Your task to perform on an android device: Search for usb-a on walmart, select the first entry, and add it to the cart. Image 0: 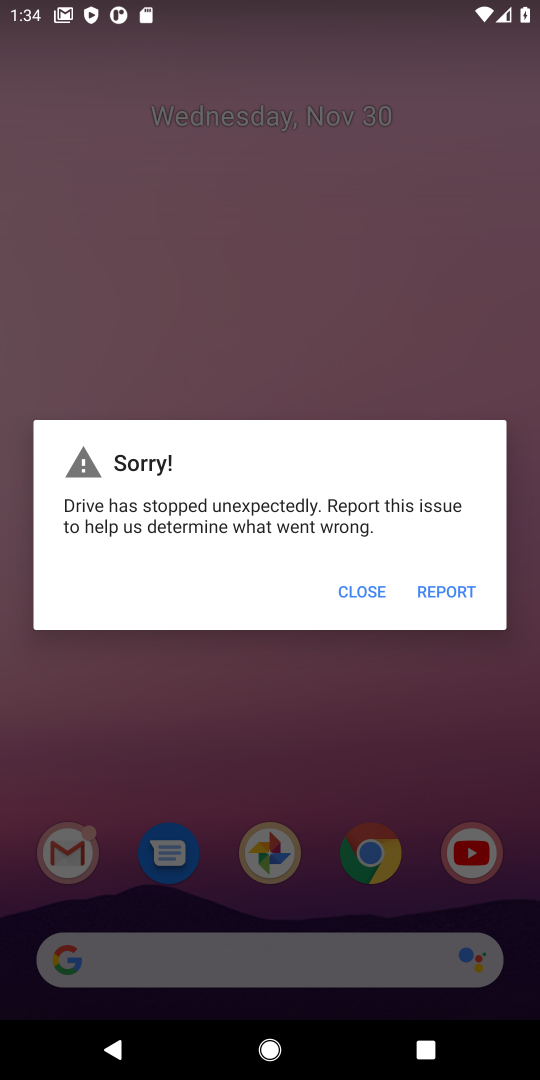
Step 0: press home button
Your task to perform on an android device: Search for usb-a on walmart, select the first entry, and add it to the cart. Image 1: 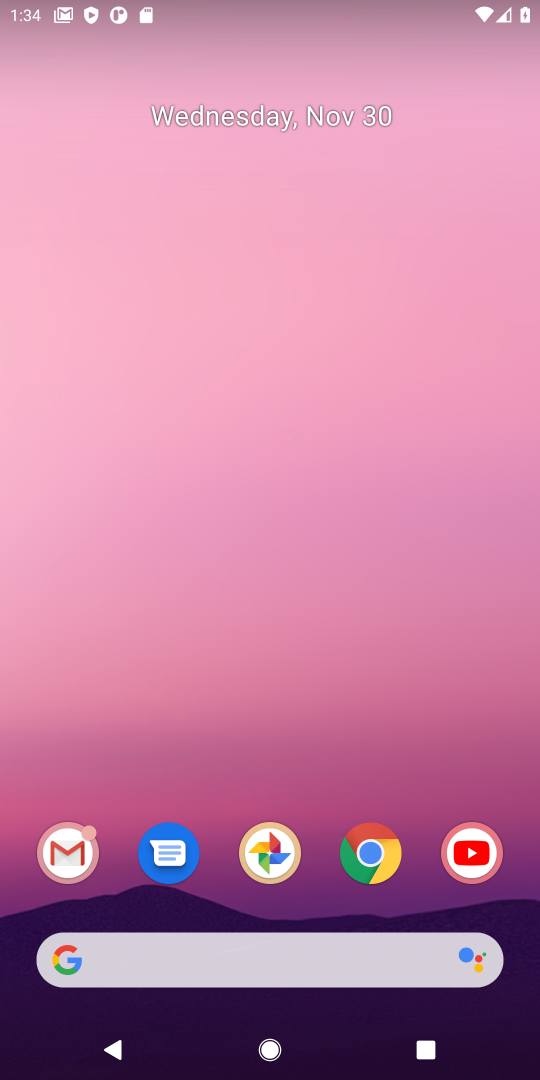
Step 1: click (368, 850)
Your task to perform on an android device: Search for usb-a on walmart, select the first entry, and add it to the cart. Image 2: 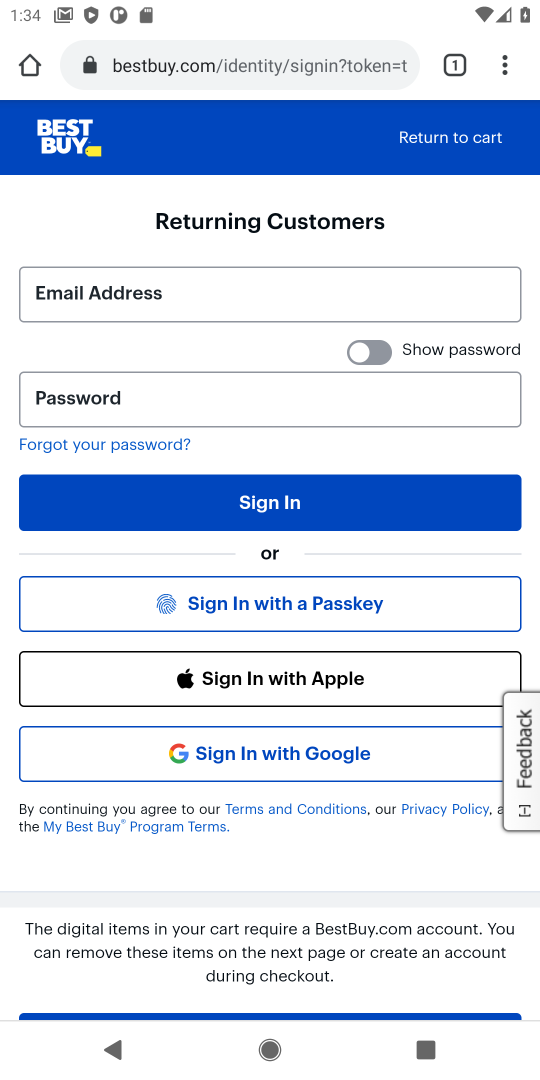
Step 2: click (253, 71)
Your task to perform on an android device: Search for usb-a on walmart, select the first entry, and add it to the cart. Image 3: 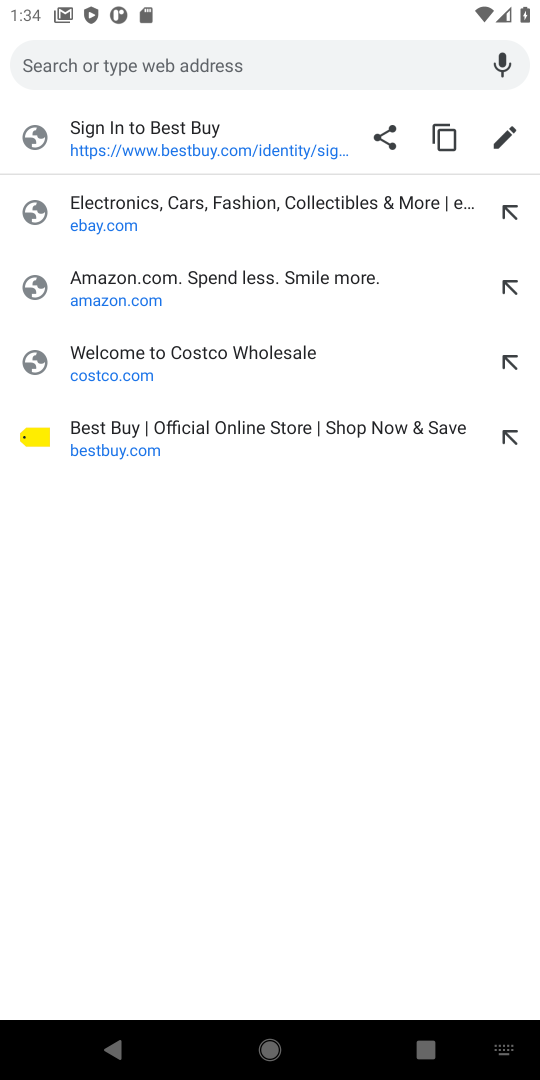
Step 3: type "walmart.com"
Your task to perform on an android device: Search for usb-a on walmart, select the first entry, and add it to the cart. Image 4: 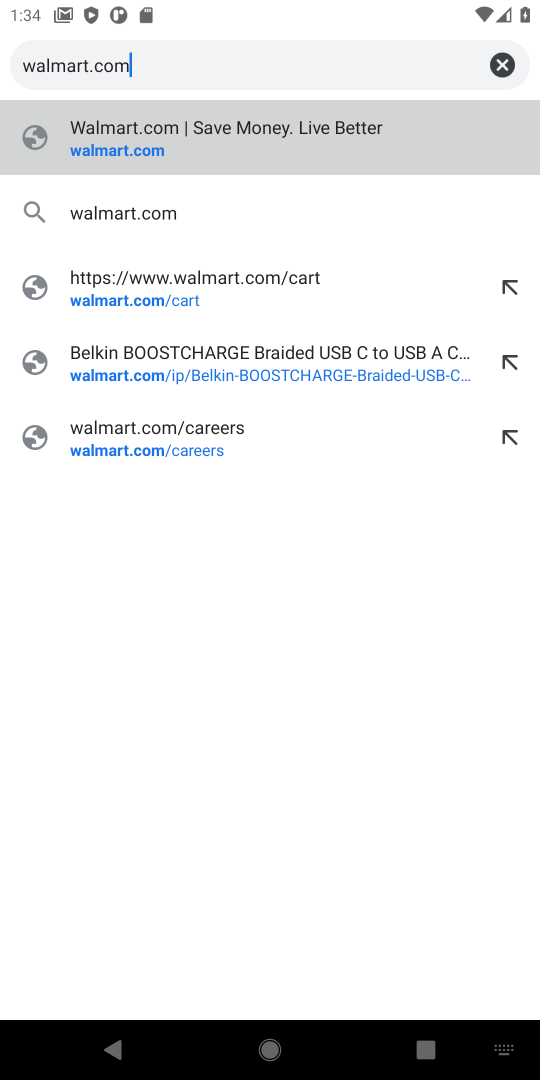
Step 4: click (104, 157)
Your task to perform on an android device: Search for usb-a on walmart, select the first entry, and add it to the cart. Image 5: 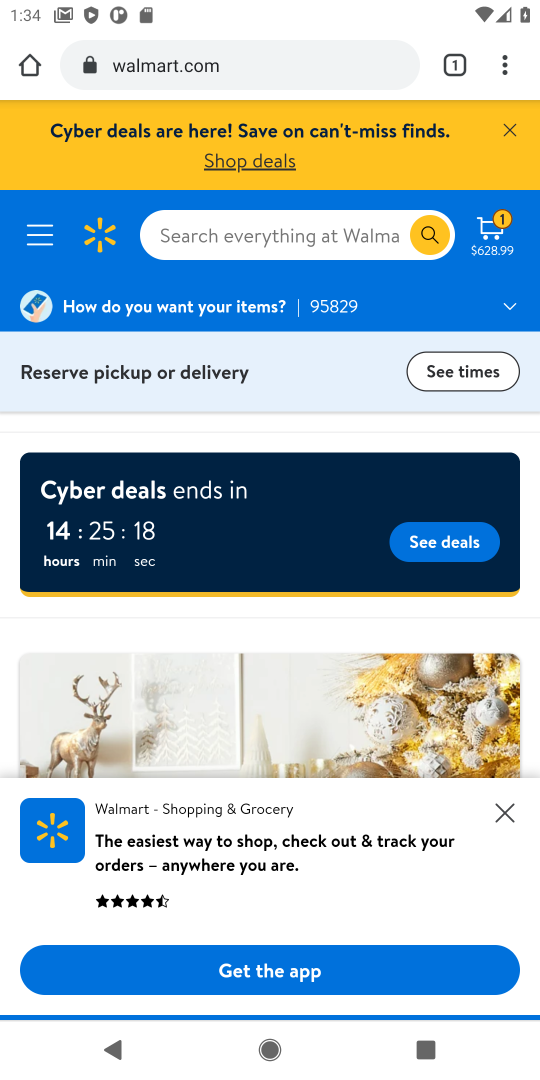
Step 5: click (191, 229)
Your task to perform on an android device: Search for usb-a on walmart, select the first entry, and add it to the cart. Image 6: 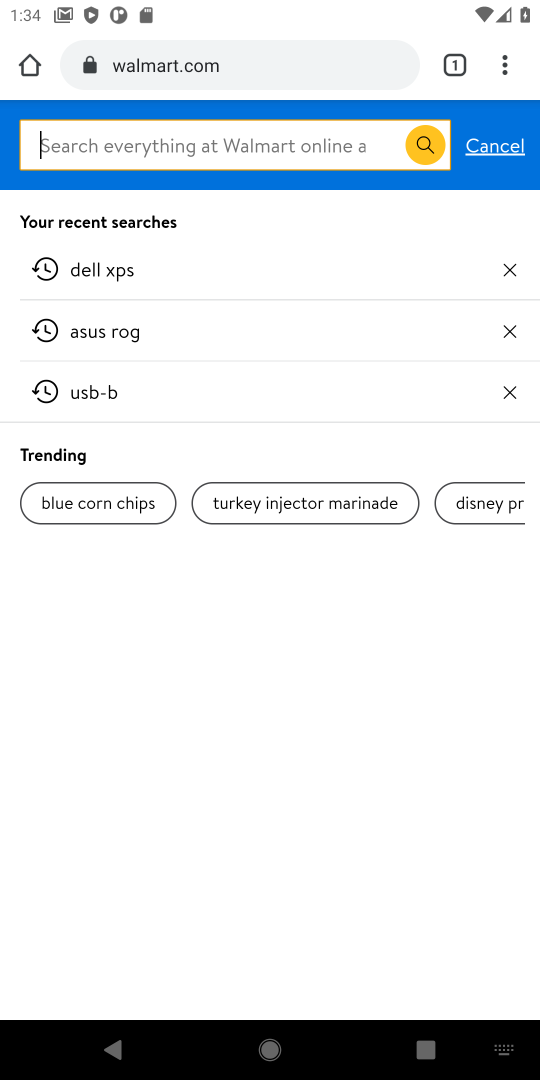
Step 6: type "usb-a "
Your task to perform on an android device: Search for usb-a on walmart, select the first entry, and add it to the cart. Image 7: 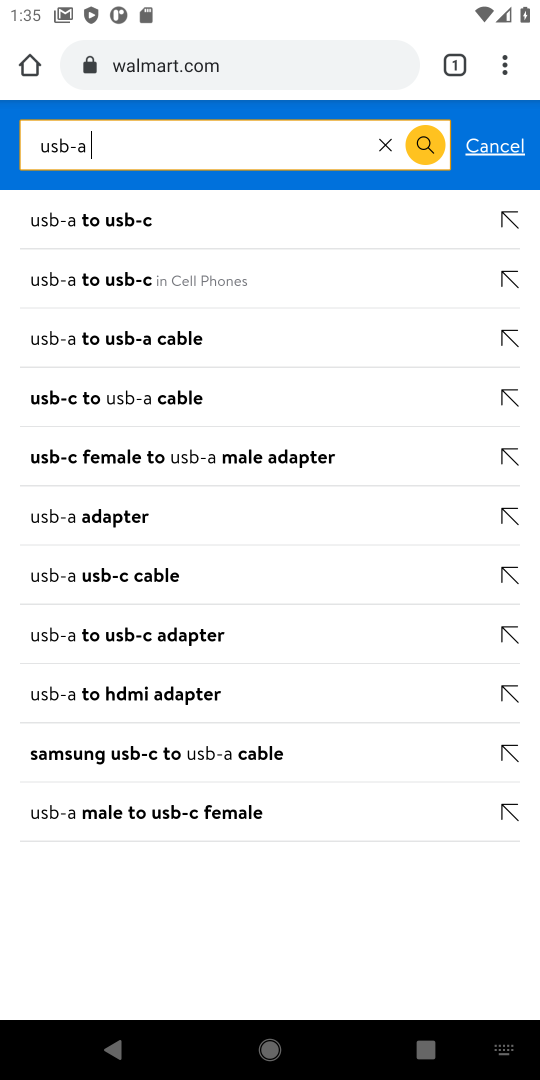
Step 7: click (430, 142)
Your task to perform on an android device: Search for usb-a on walmart, select the first entry, and add it to the cart. Image 8: 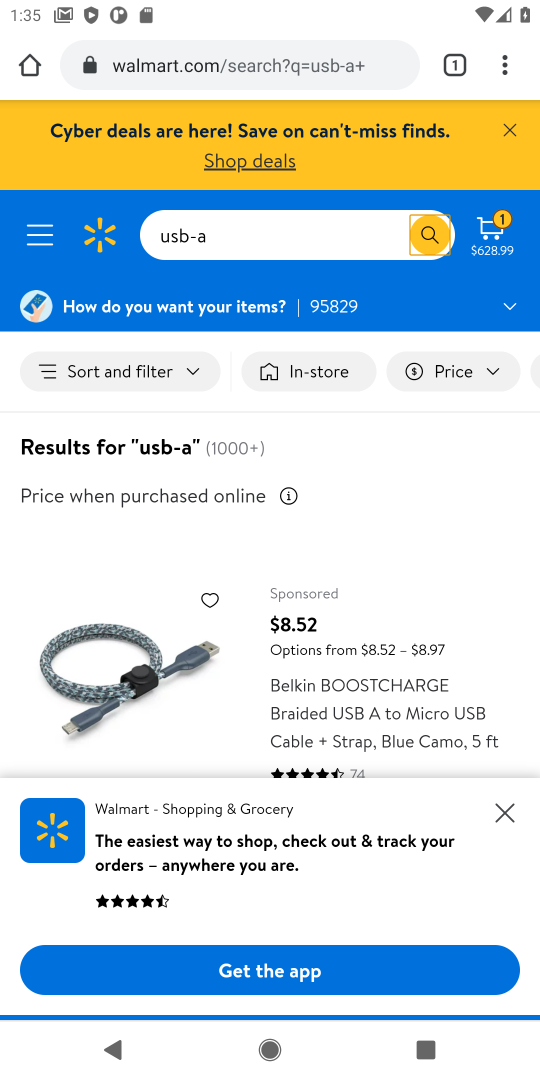
Step 8: drag from (164, 585) to (189, 416)
Your task to perform on an android device: Search for usb-a on walmart, select the first entry, and add it to the cart. Image 9: 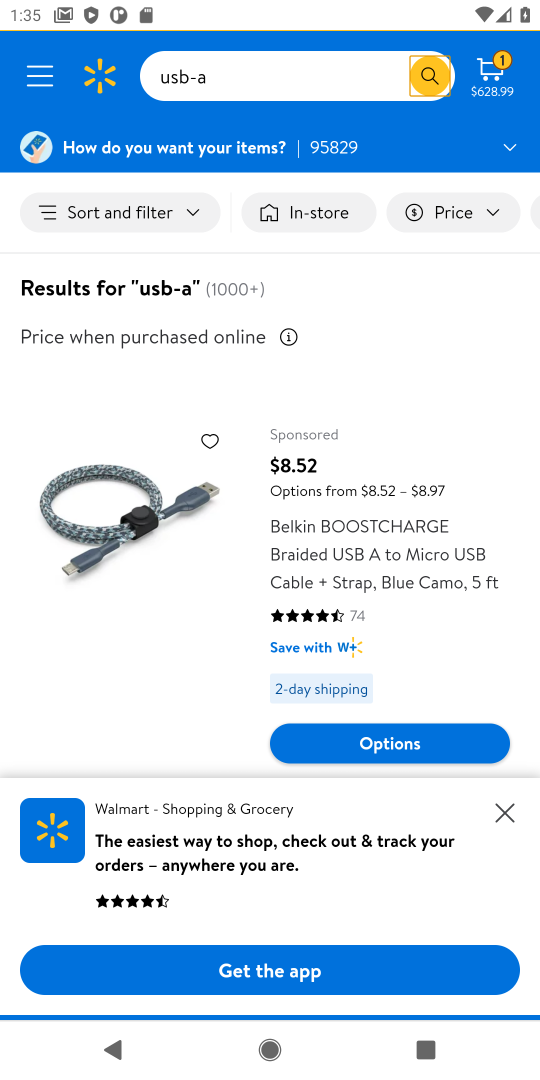
Step 9: click (389, 567)
Your task to perform on an android device: Search for usb-a on walmart, select the first entry, and add it to the cart. Image 10: 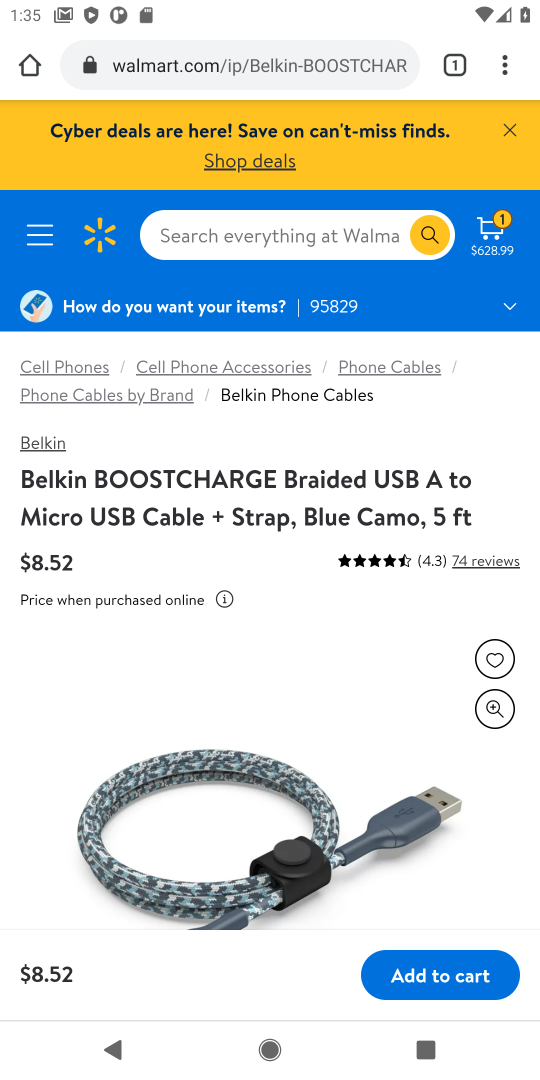
Step 10: drag from (301, 622) to (273, 429)
Your task to perform on an android device: Search for usb-a on walmart, select the first entry, and add it to the cart. Image 11: 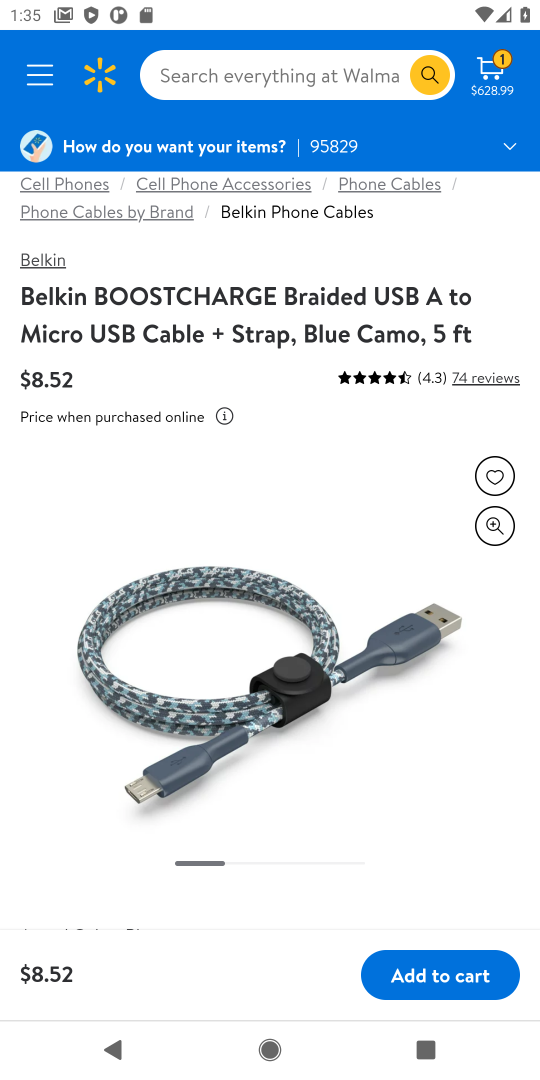
Step 11: click (454, 980)
Your task to perform on an android device: Search for usb-a on walmart, select the first entry, and add it to the cart. Image 12: 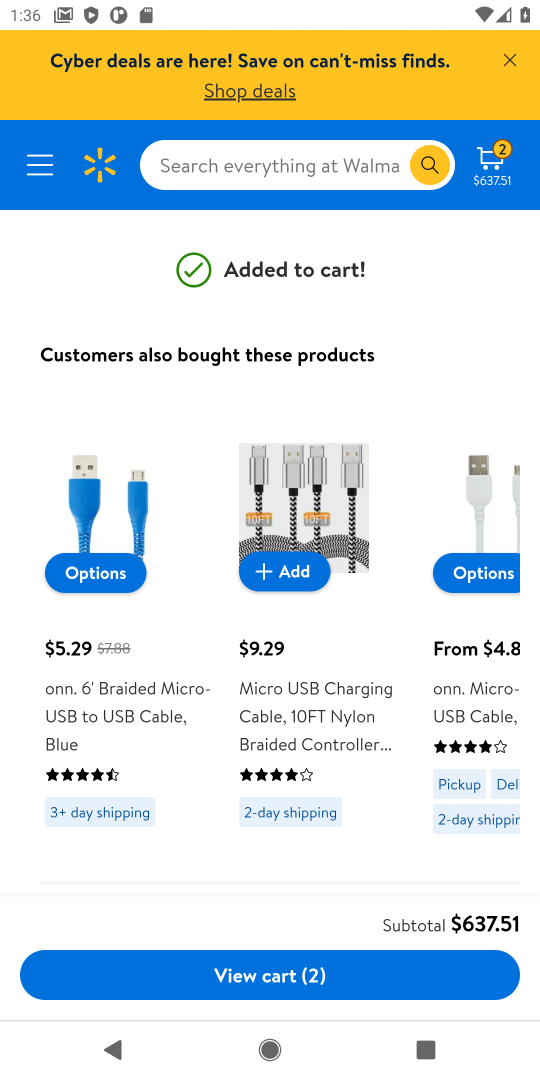
Step 12: task complete